Your task to perform on an android device: open chrome privacy settings Image 0: 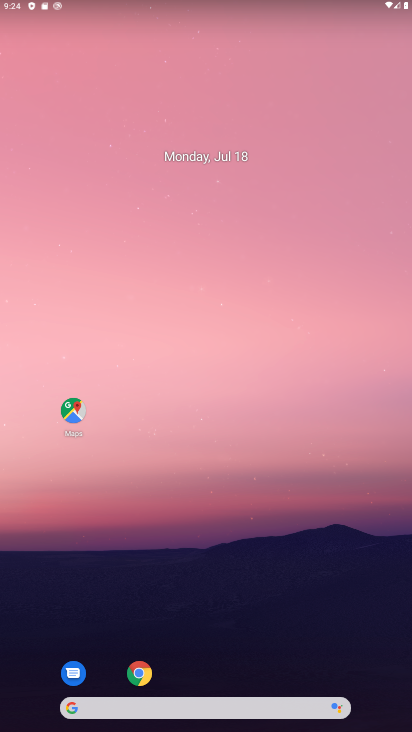
Step 0: drag from (218, 679) to (243, 183)
Your task to perform on an android device: open chrome privacy settings Image 1: 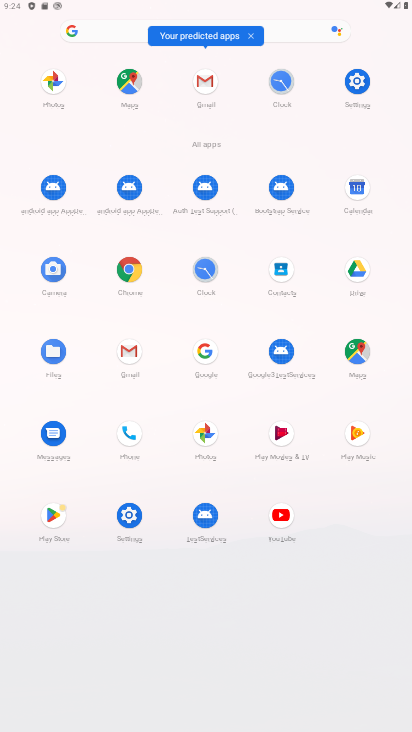
Step 1: click (129, 271)
Your task to perform on an android device: open chrome privacy settings Image 2: 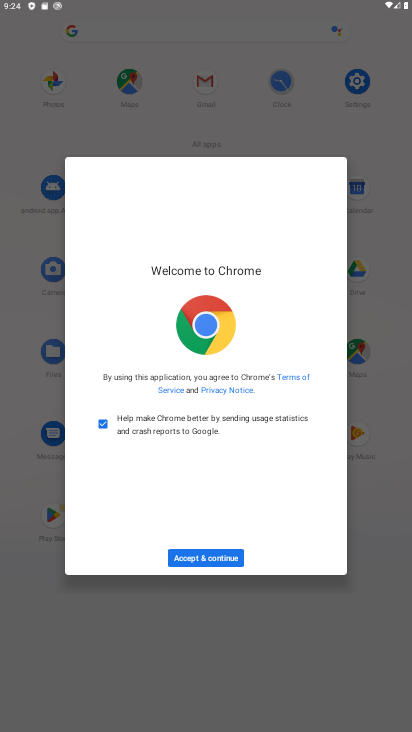
Step 2: click (223, 556)
Your task to perform on an android device: open chrome privacy settings Image 3: 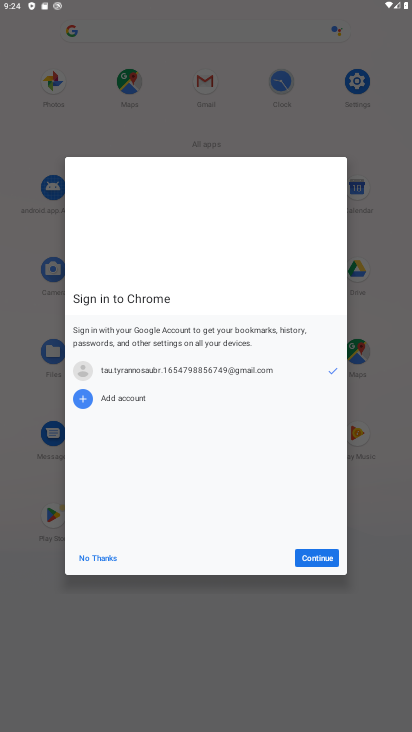
Step 3: click (314, 561)
Your task to perform on an android device: open chrome privacy settings Image 4: 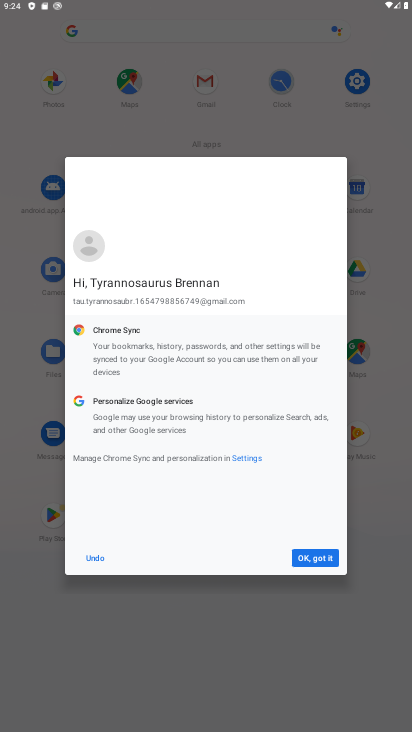
Step 4: click (311, 560)
Your task to perform on an android device: open chrome privacy settings Image 5: 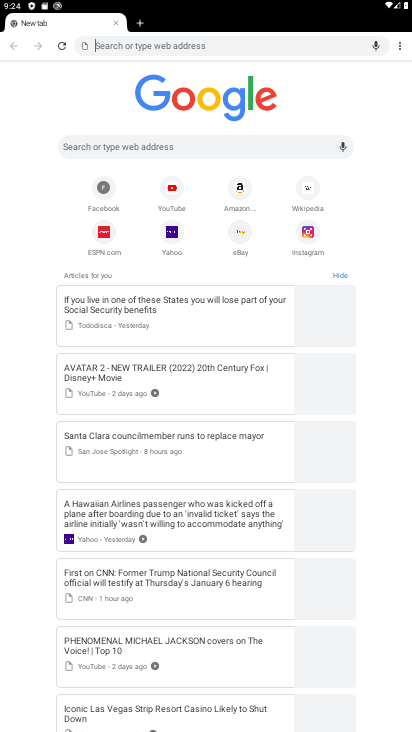
Step 5: drag from (394, 51) to (332, 214)
Your task to perform on an android device: open chrome privacy settings Image 6: 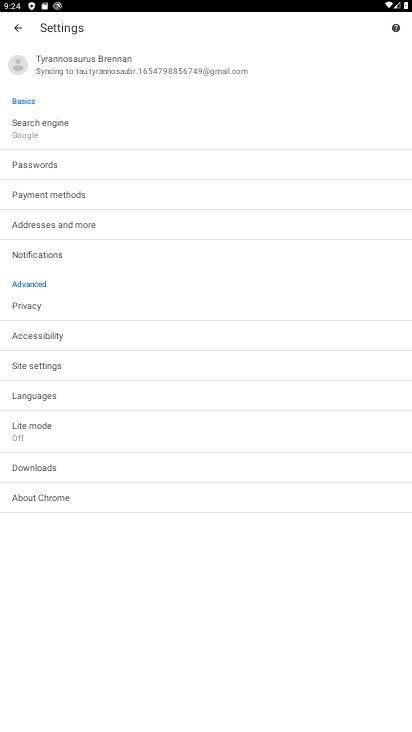
Step 6: click (115, 313)
Your task to perform on an android device: open chrome privacy settings Image 7: 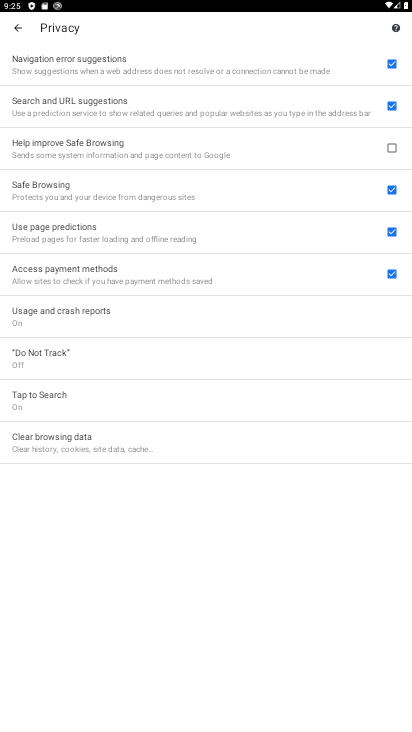
Step 7: task complete